Your task to perform on an android device: set an alarm Image 0: 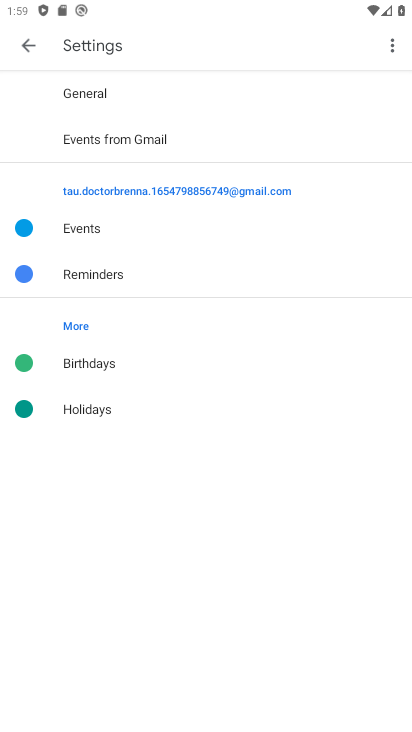
Step 0: press home button
Your task to perform on an android device: set an alarm Image 1: 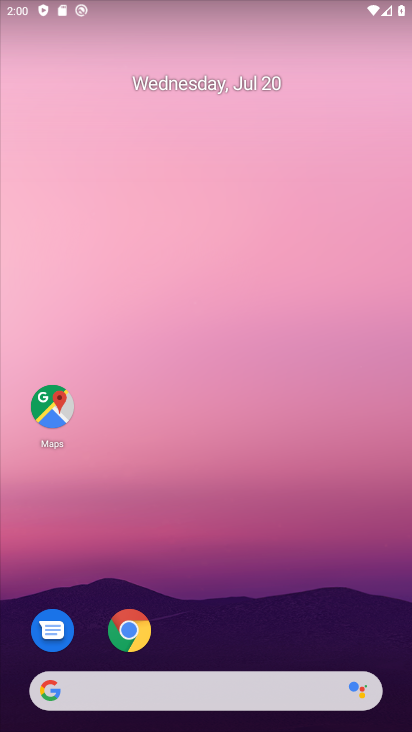
Step 1: drag from (139, 454) to (323, 191)
Your task to perform on an android device: set an alarm Image 2: 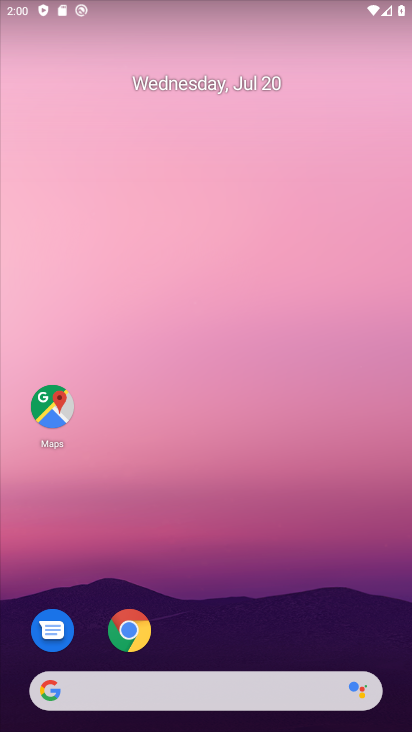
Step 2: drag from (68, 532) to (327, 176)
Your task to perform on an android device: set an alarm Image 3: 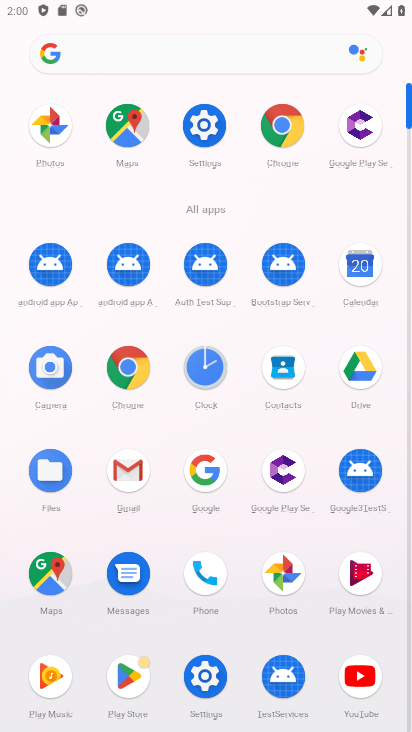
Step 3: click (217, 374)
Your task to perform on an android device: set an alarm Image 4: 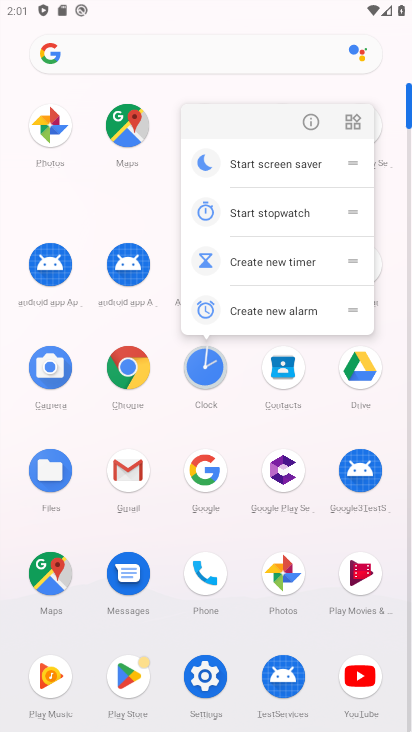
Step 4: click (196, 375)
Your task to perform on an android device: set an alarm Image 5: 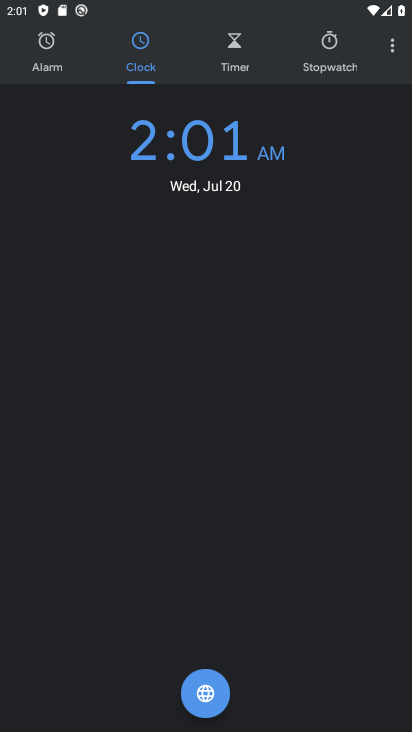
Step 5: click (42, 54)
Your task to perform on an android device: set an alarm Image 6: 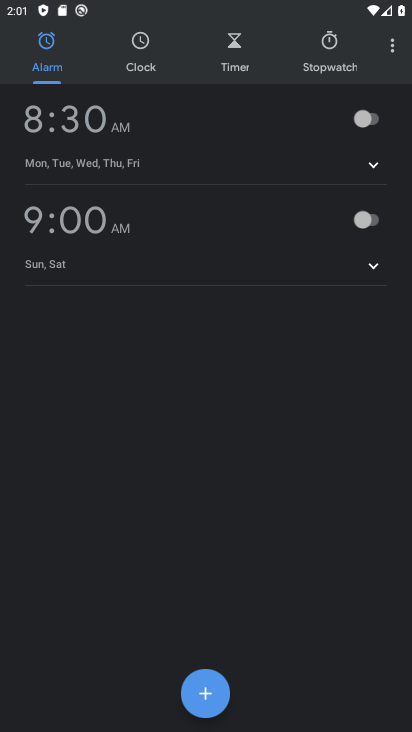
Step 6: click (198, 697)
Your task to perform on an android device: set an alarm Image 7: 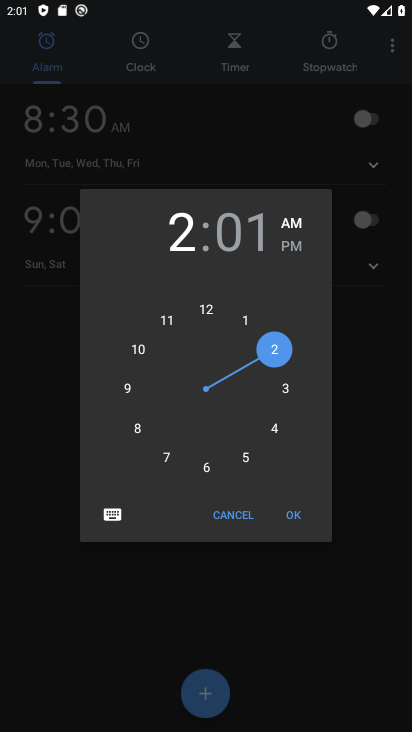
Step 7: click (235, 460)
Your task to perform on an android device: set an alarm Image 8: 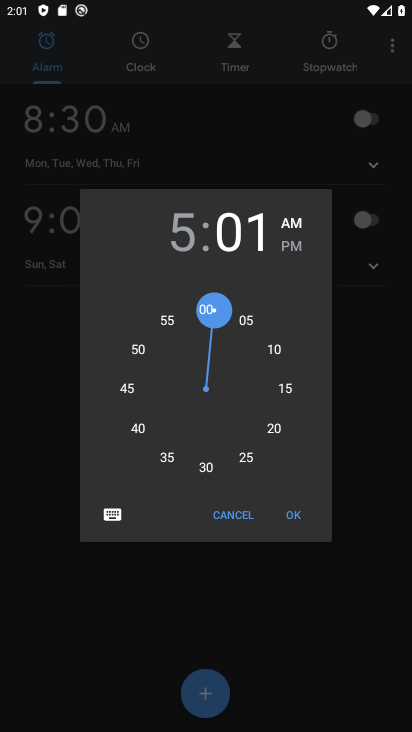
Step 8: click (131, 377)
Your task to perform on an android device: set an alarm Image 9: 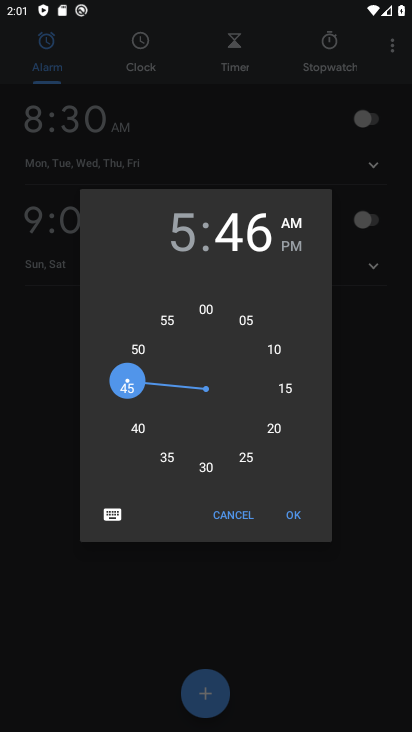
Step 9: click (288, 513)
Your task to perform on an android device: set an alarm Image 10: 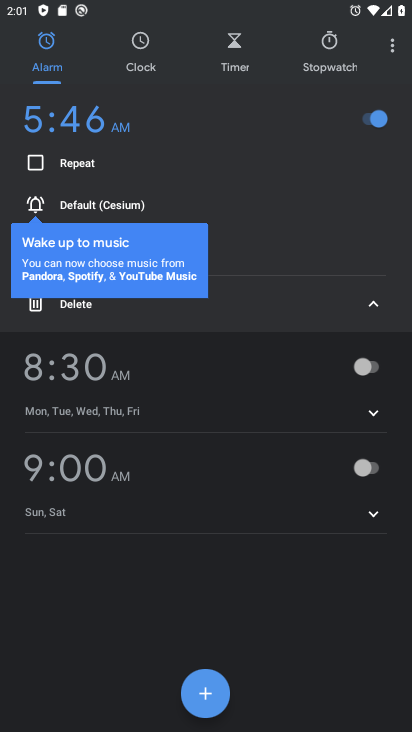
Step 10: task complete